Your task to perform on an android device: Go to wifi settings Image 0: 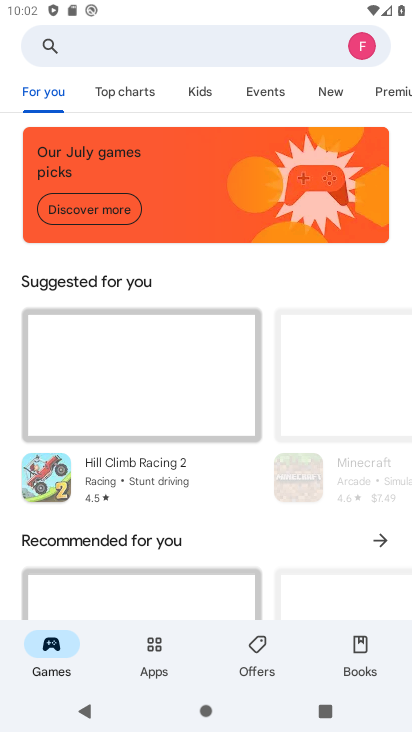
Step 0: press home button
Your task to perform on an android device: Go to wifi settings Image 1: 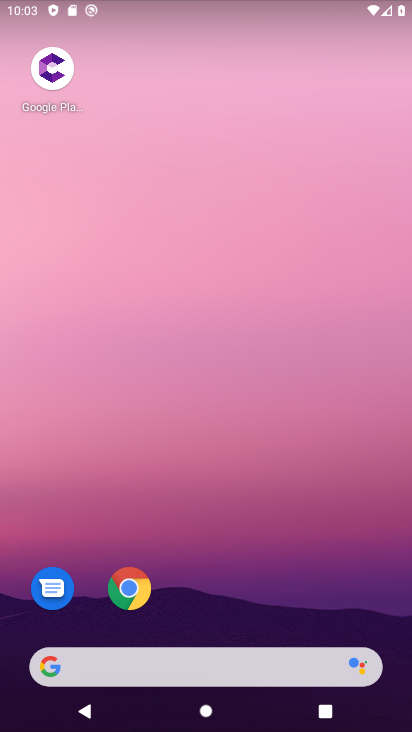
Step 1: drag from (265, 494) to (391, 28)
Your task to perform on an android device: Go to wifi settings Image 2: 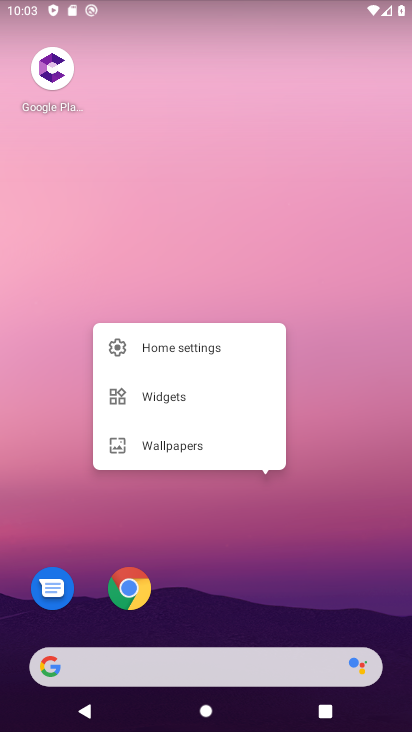
Step 2: click (127, 198)
Your task to perform on an android device: Go to wifi settings Image 3: 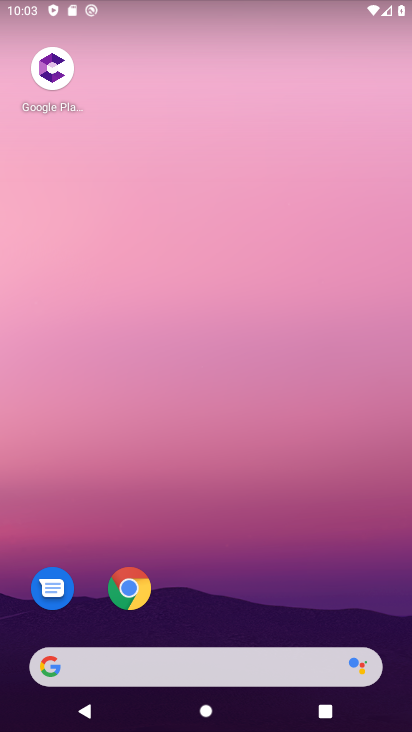
Step 3: click (202, 497)
Your task to perform on an android device: Go to wifi settings Image 4: 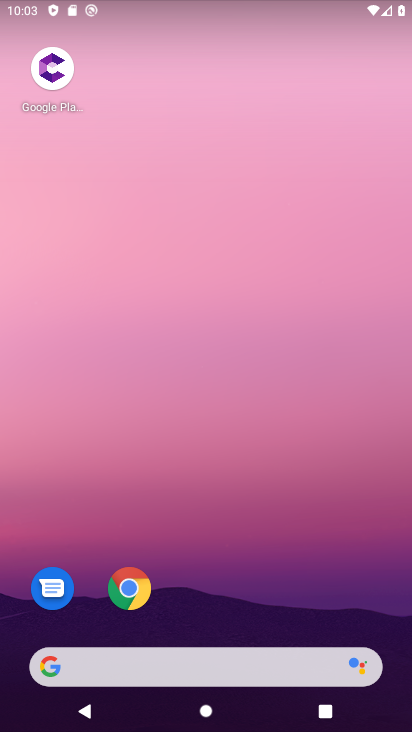
Step 4: drag from (202, 497) to (147, 11)
Your task to perform on an android device: Go to wifi settings Image 5: 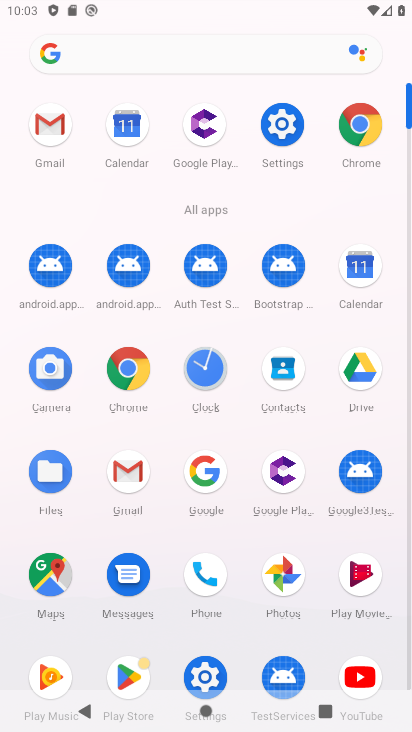
Step 5: click (284, 127)
Your task to perform on an android device: Go to wifi settings Image 6: 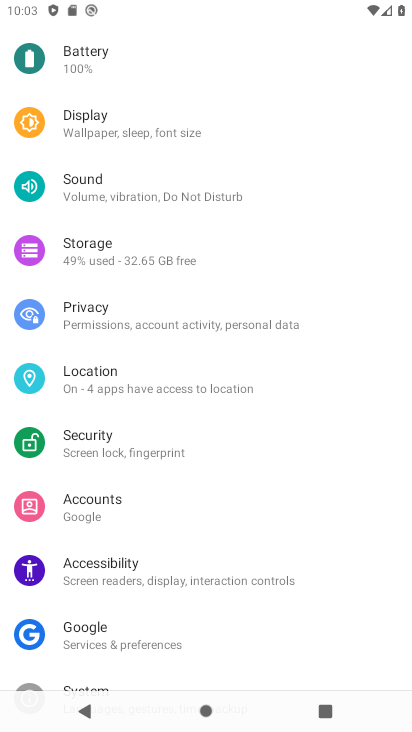
Step 6: drag from (241, 117) to (164, 531)
Your task to perform on an android device: Go to wifi settings Image 7: 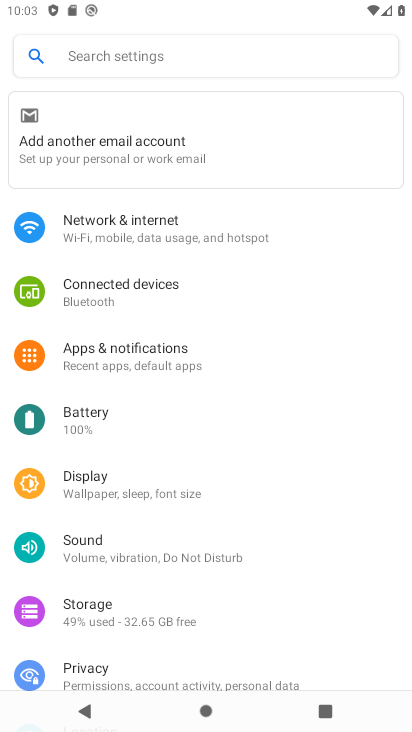
Step 7: click (114, 220)
Your task to perform on an android device: Go to wifi settings Image 8: 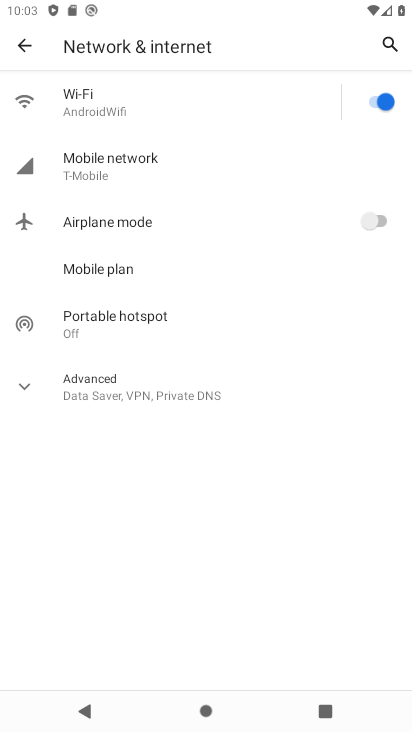
Step 8: click (114, 98)
Your task to perform on an android device: Go to wifi settings Image 9: 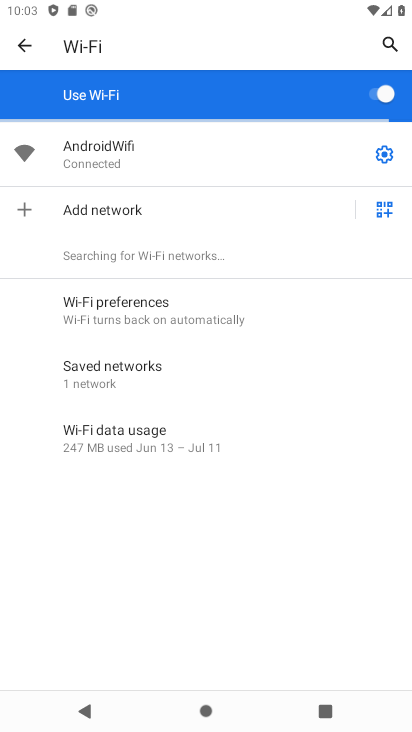
Step 9: task complete